Your task to perform on an android device: find photos in the google photos app Image 0: 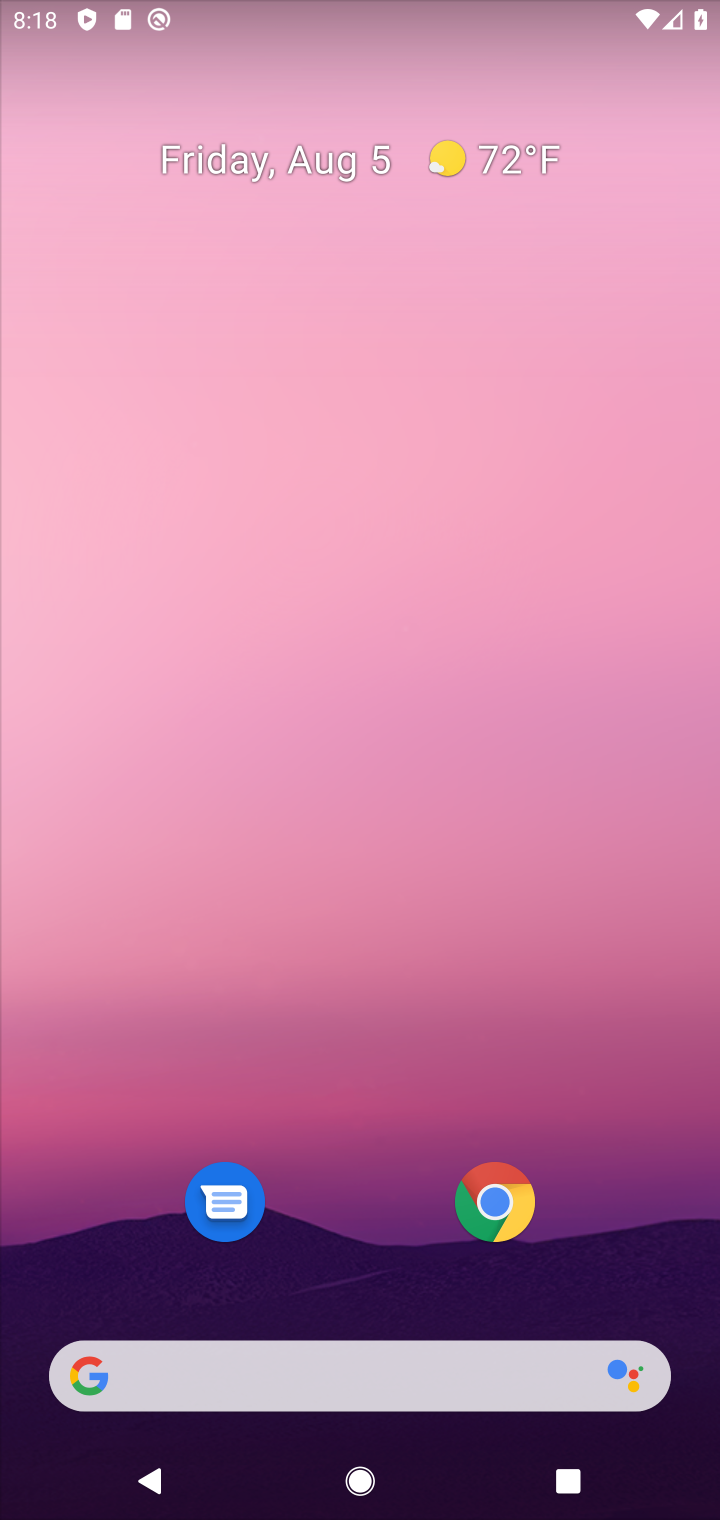
Step 0: drag from (359, 1202) to (402, 339)
Your task to perform on an android device: find photos in the google photos app Image 1: 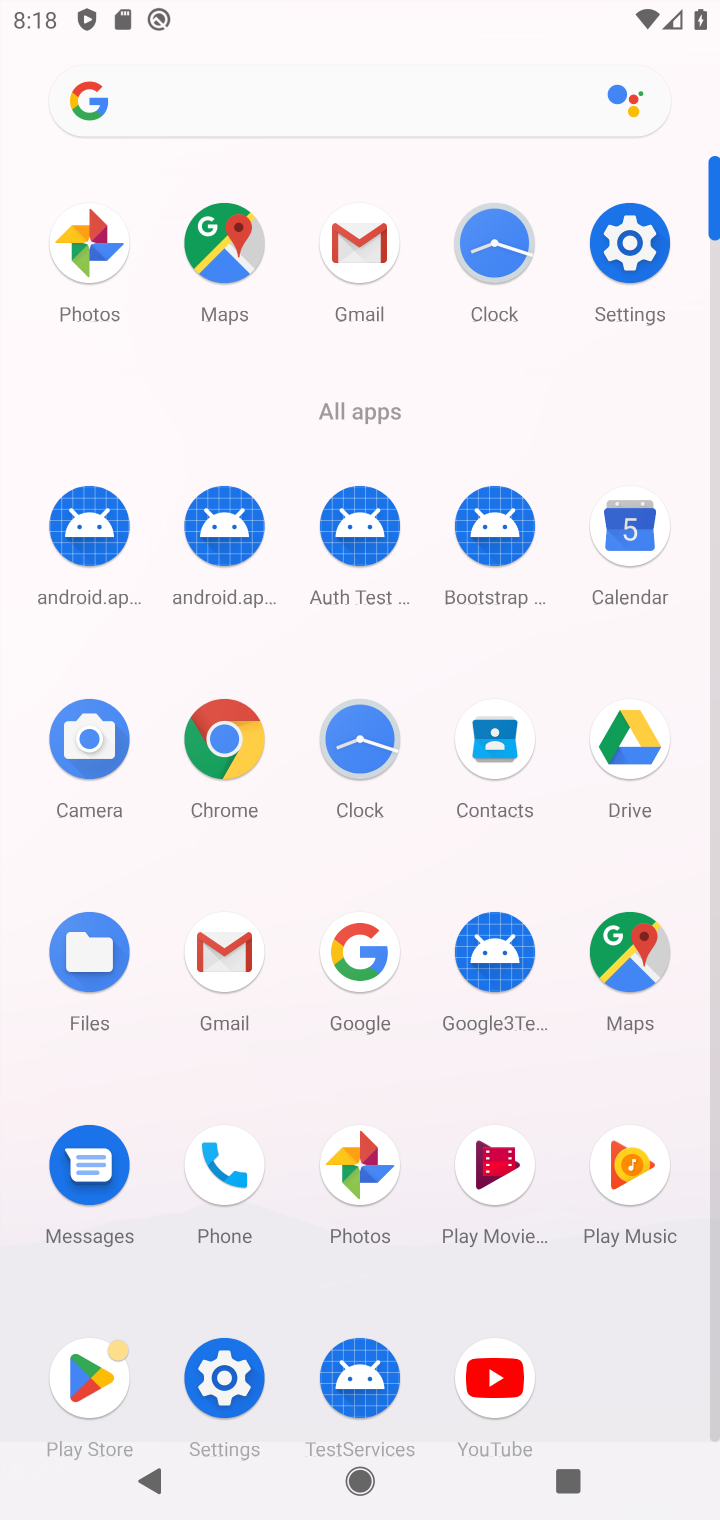
Step 1: click (366, 1141)
Your task to perform on an android device: find photos in the google photos app Image 2: 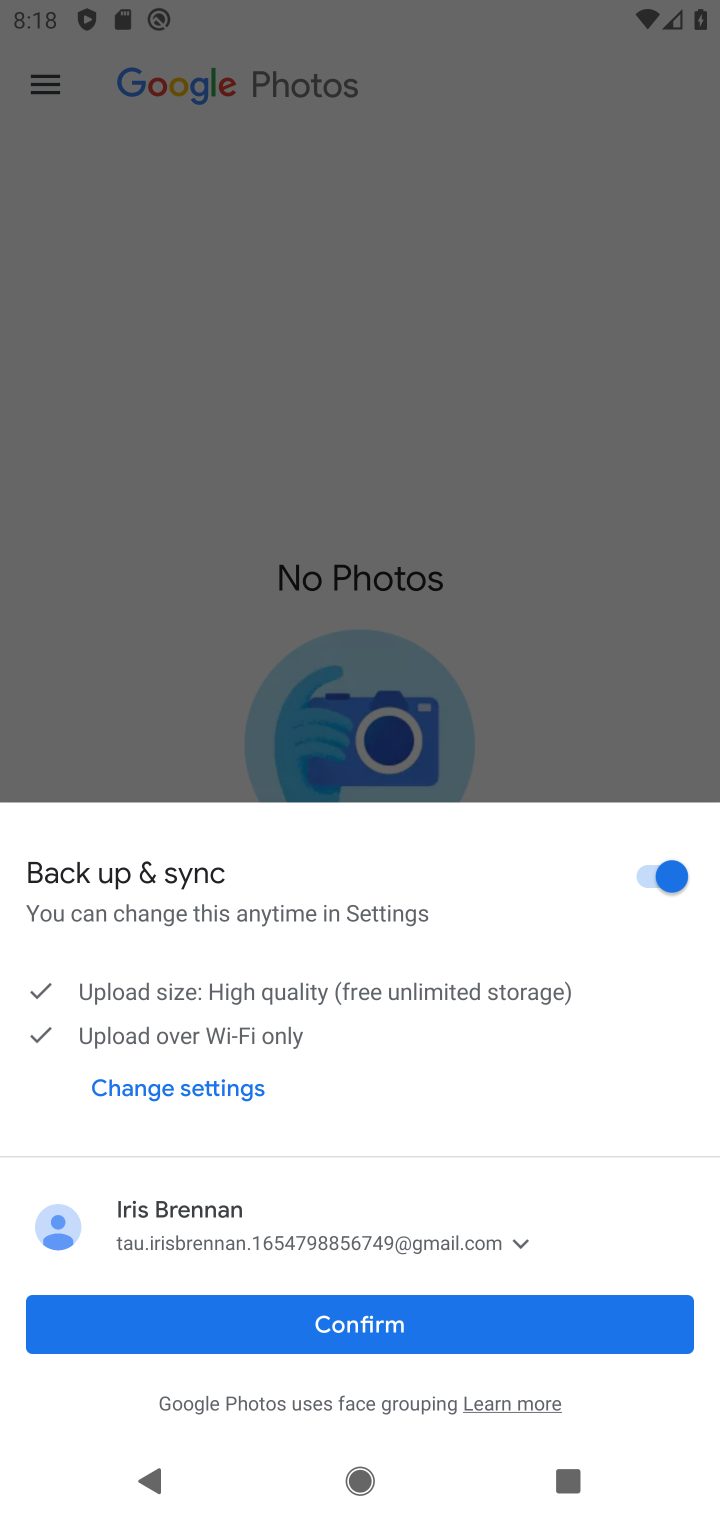
Step 2: click (370, 1325)
Your task to perform on an android device: find photos in the google photos app Image 3: 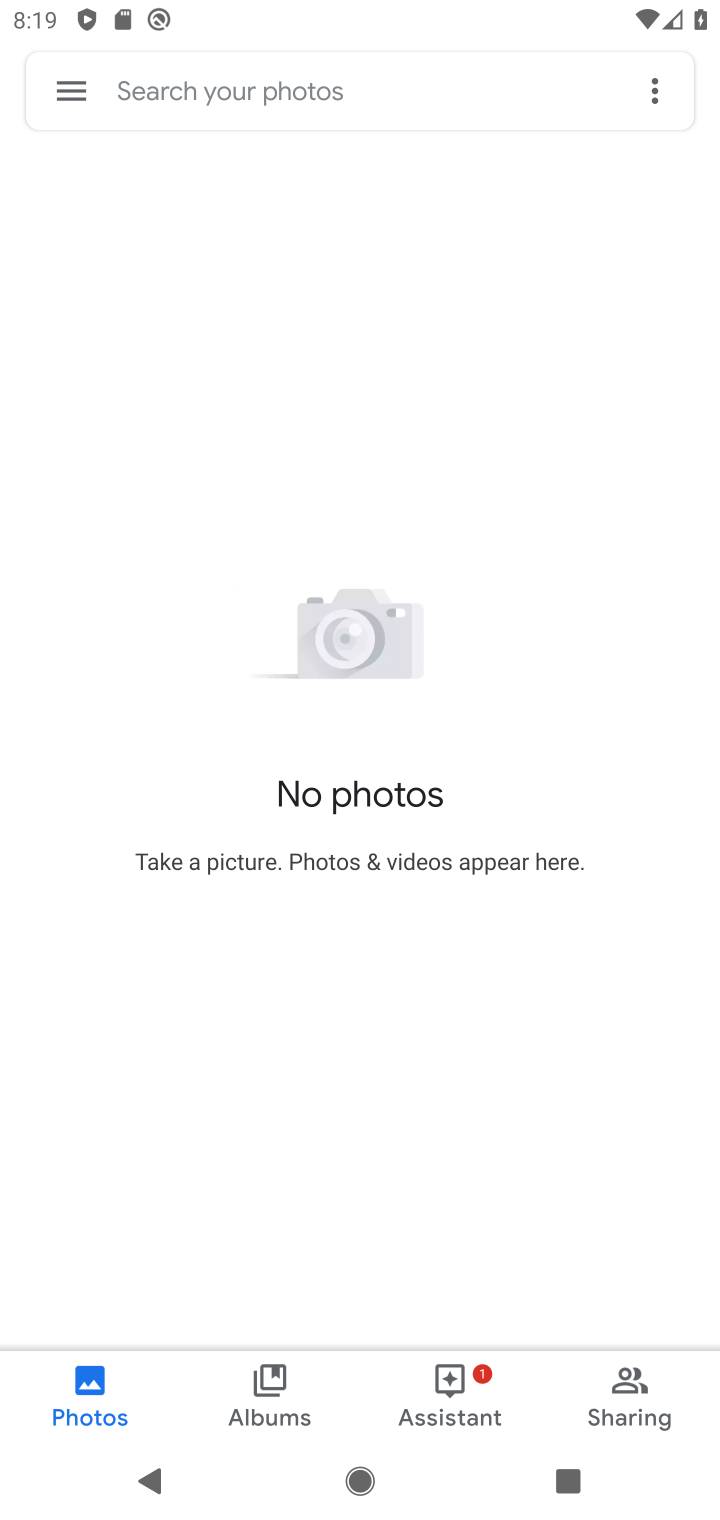
Step 3: task complete